Your task to perform on an android device: Go to wifi settings Image 0: 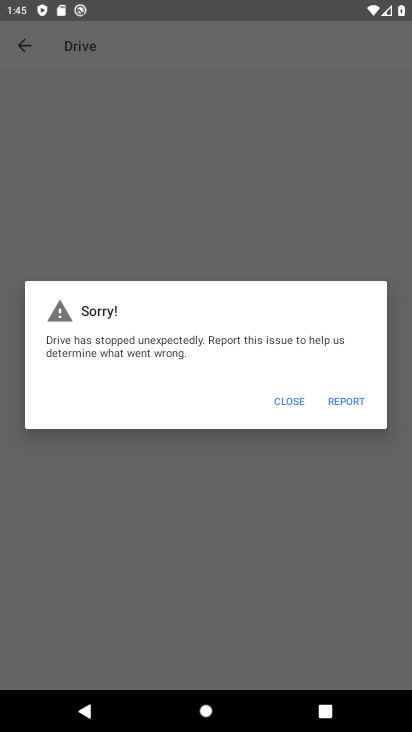
Step 0: press home button
Your task to perform on an android device: Go to wifi settings Image 1: 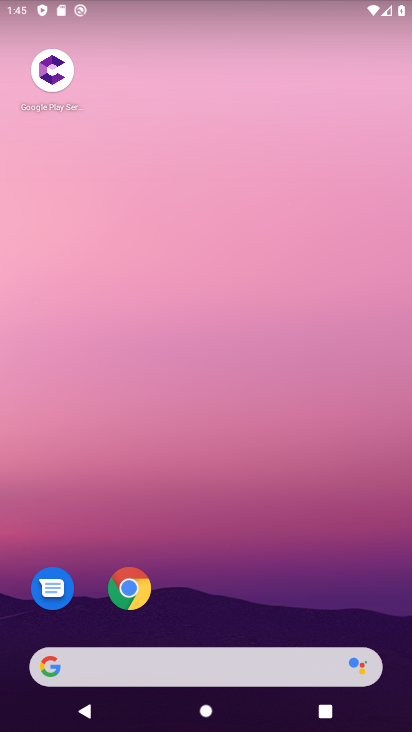
Step 1: drag from (258, 589) to (200, 80)
Your task to perform on an android device: Go to wifi settings Image 2: 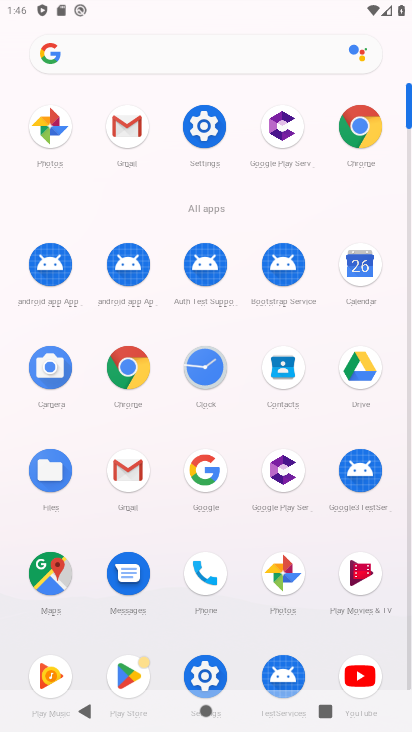
Step 2: click (200, 114)
Your task to perform on an android device: Go to wifi settings Image 3: 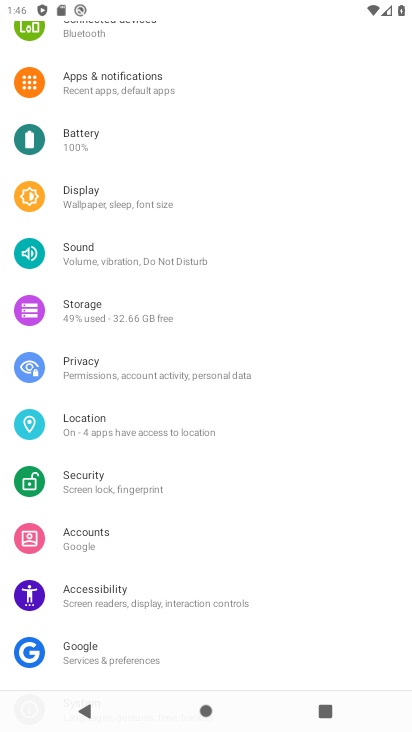
Step 3: drag from (167, 108) to (253, 701)
Your task to perform on an android device: Go to wifi settings Image 4: 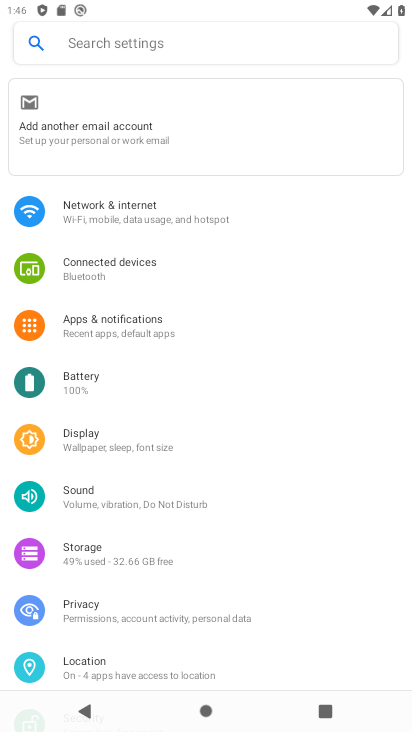
Step 4: click (158, 208)
Your task to perform on an android device: Go to wifi settings Image 5: 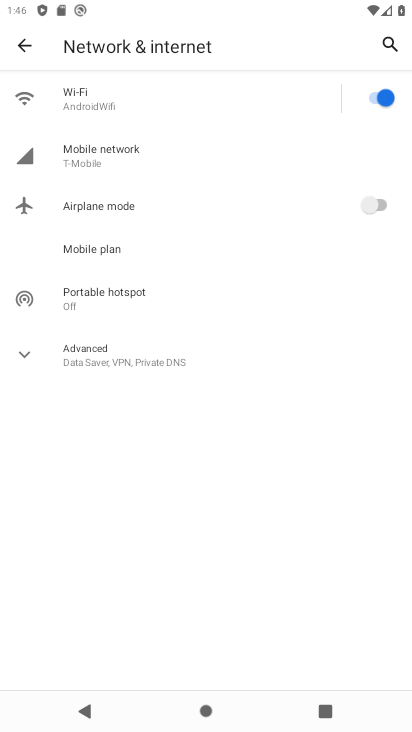
Step 5: drag from (384, 99) to (389, 200)
Your task to perform on an android device: Go to wifi settings Image 6: 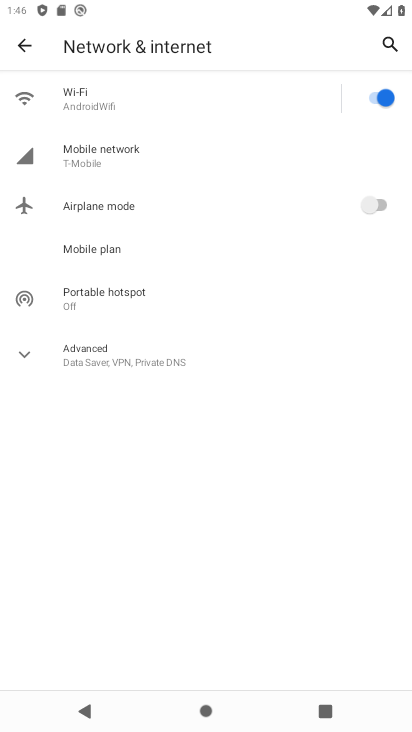
Step 6: click (166, 108)
Your task to perform on an android device: Go to wifi settings Image 7: 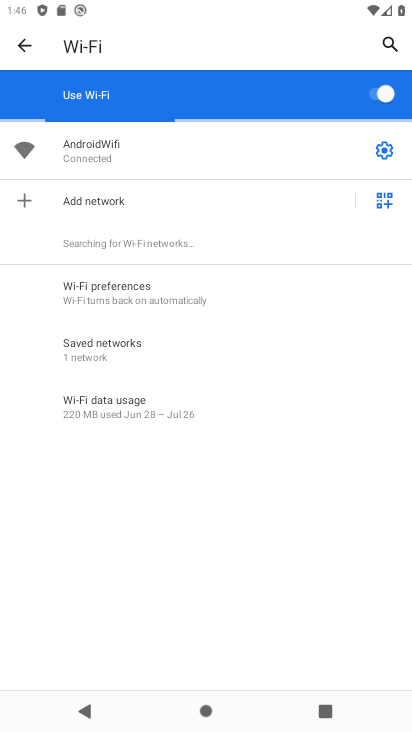
Step 7: task complete